Your task to perform on an android device: See recent photos Image 0: 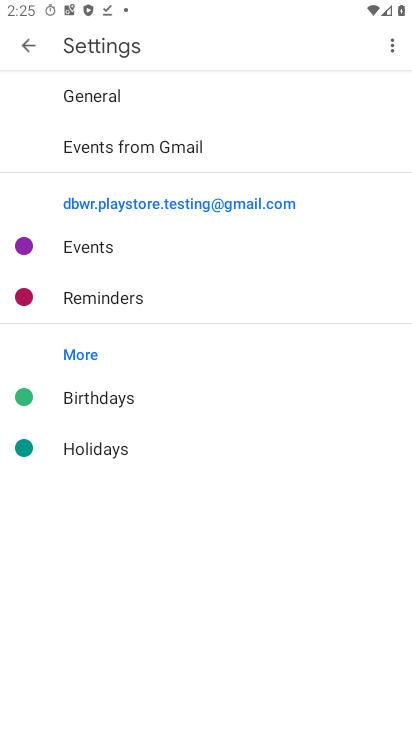
Step 0: press home button
Your task to perform on an android device: See recent photos Image 1: 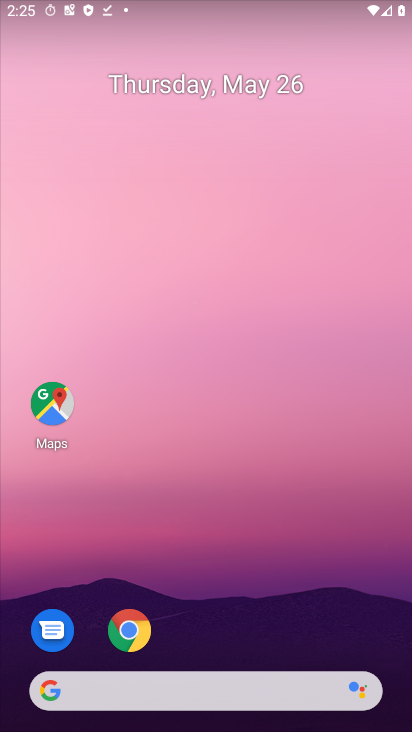
Step 1: drag from (239, 552) to (230, 45)
Your task to perform on an android device: See recent photos Image 2: 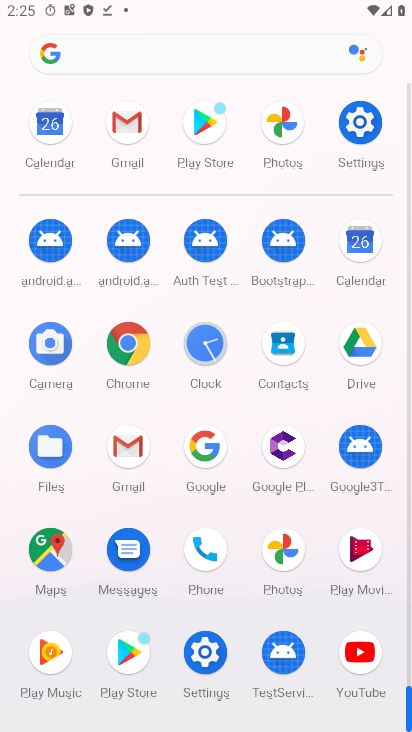
Step 2: click (280, 122)
Your task to perform on an android device: See recent photos Image 3: 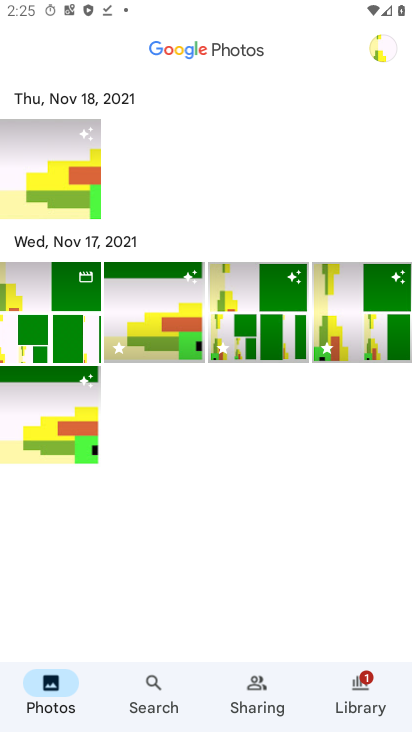
Step 3: task complete